Your task to perform on an android device: Go to privacy settings Image 0: 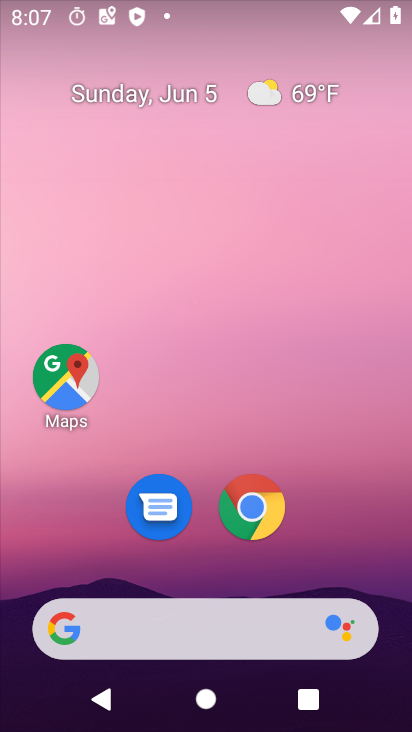
Step 0: drag from (337, 442) to (279, 26)
Your task to perform on an android device: Go to privacy settings Image 1: 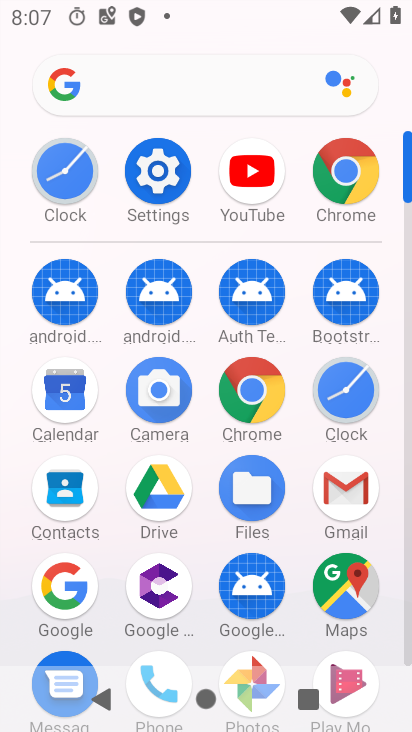
Step 1: click (154, 168)
Your task to perform on an android device: Go to privacy settings Image 2: 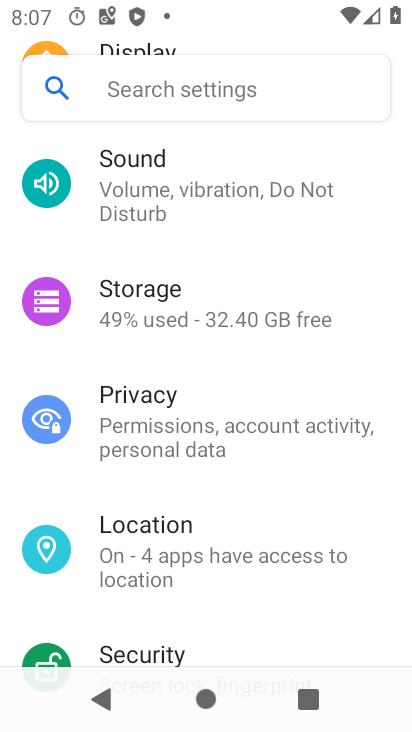
Step 2: click (162, 422)
Your task to perform on an android device: Go to privacy settings Image 3: 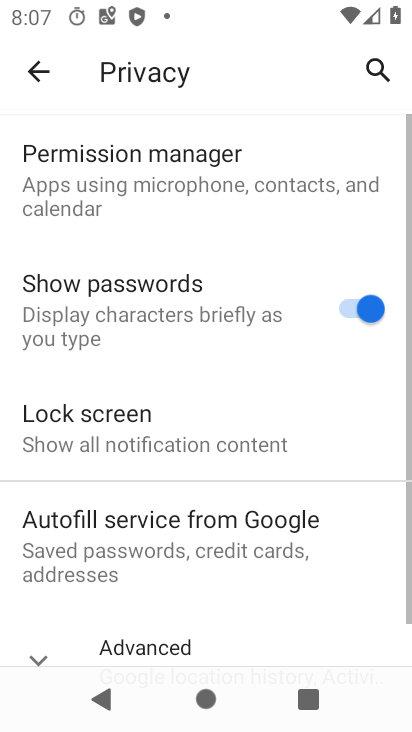
Step 3: drag from (50, 611) to (95, 209)
Your task to perform on an android device: Go to privacy settings Image 4: 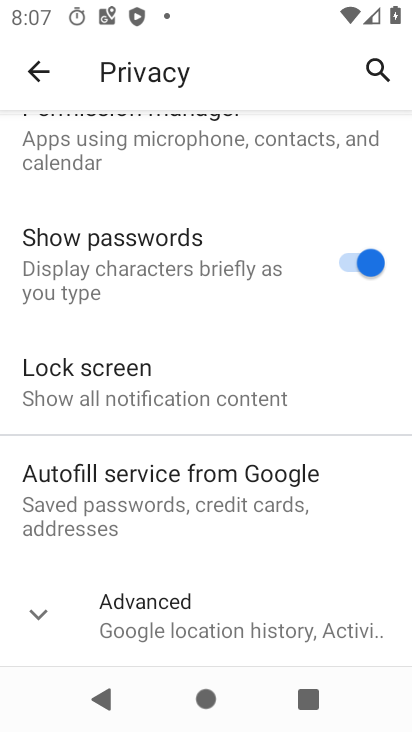
Step 4: click (40, 604)
Your task to perform on an android device: Go to privacy settings Image 5: 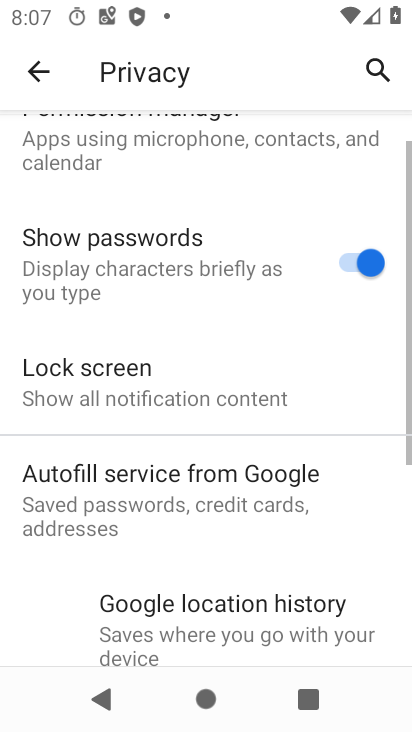
Step 5: task complete